Your task to perform on an android device: Do I have any events tomorrow? Image 0: 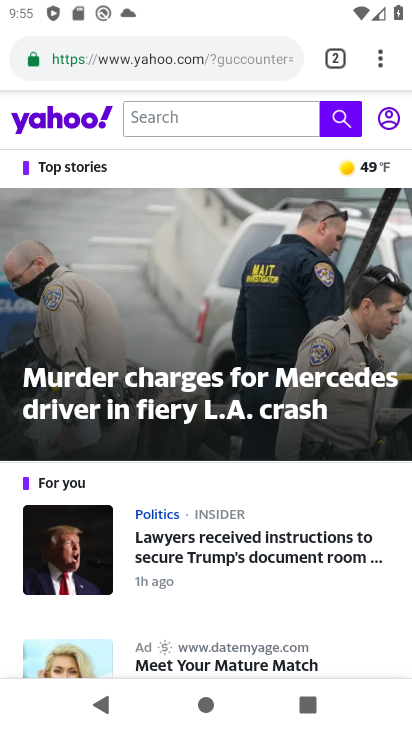
Step 0: press home button
Your task to perform on an android device: Do I have any events tomorrow? Image 1: 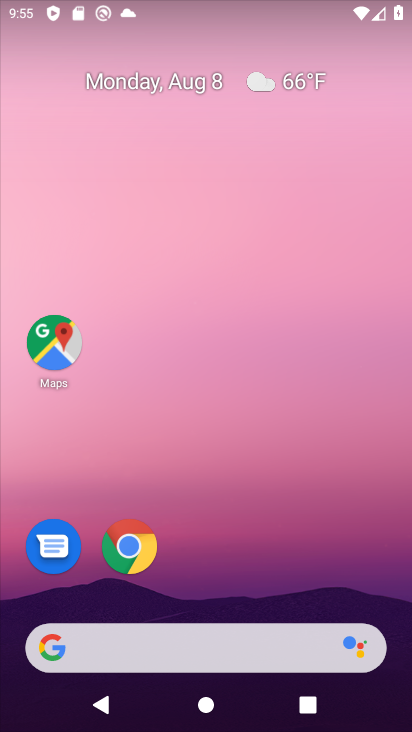
Step 1: click (202, 661)
Your task to perform on an android device: Do I have any events tomorrow? Image 2: 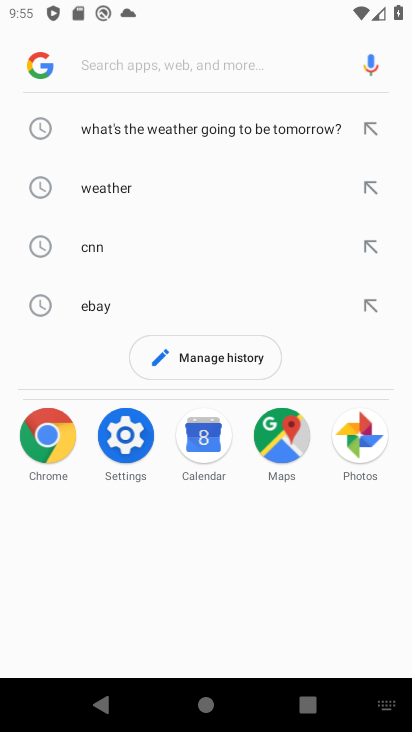
Step 2: type "Do I have any events tomorrow?"
Your task to perform on an android device: Do I have any events tomorrow? Image 3: 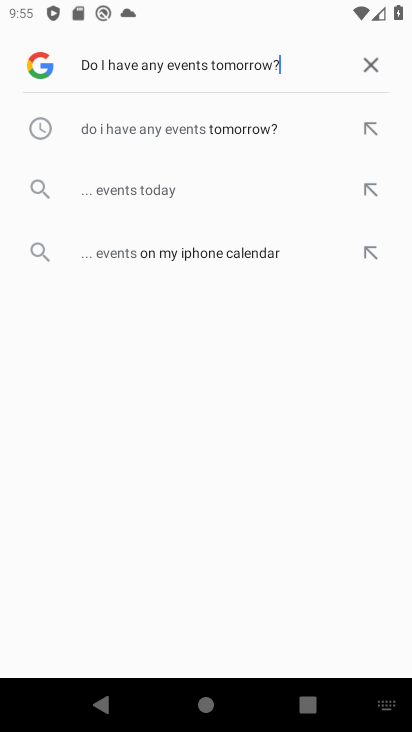
Step 3: type ""
Your task to perform on an android device: Do I have any events tomorrow? Image 4: 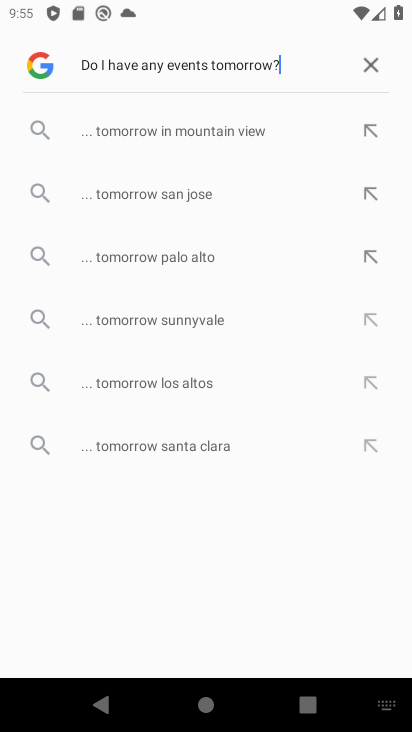
Step 4: press enter
Your task to perform on an android device: Do I have any events tomorrow? Image 5: 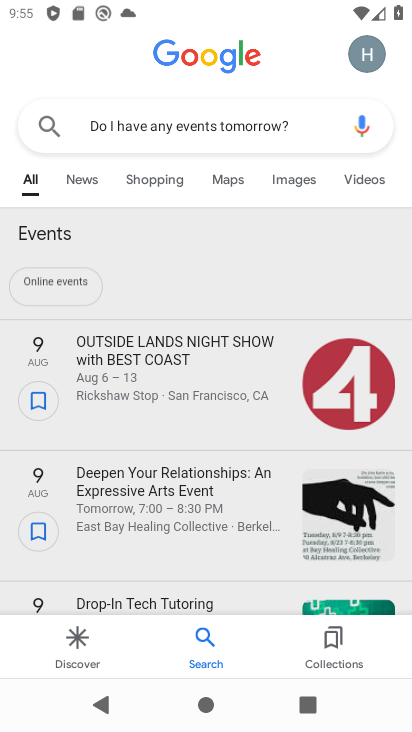
Step 5: task complete